Your task to perform on an android device: Open Google Image 0: 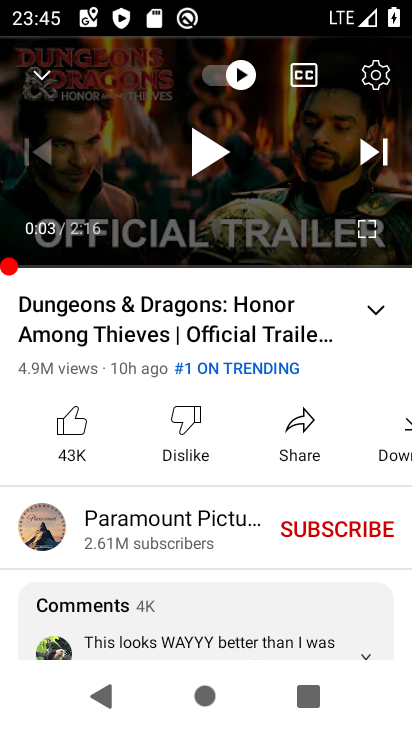
Step 0: press back button
Your task to perform on an android device: Open Google Image 1: 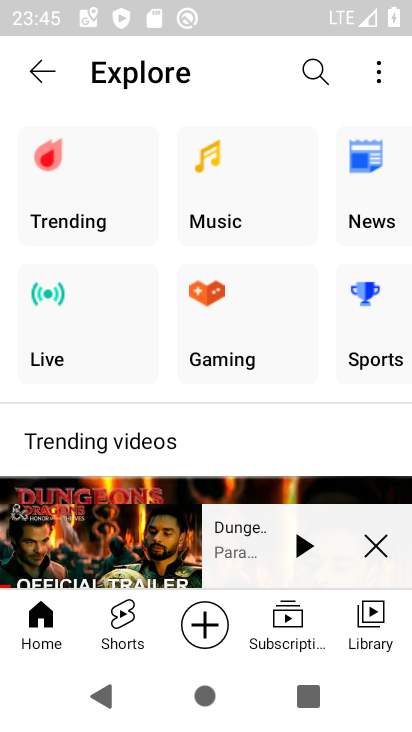
Step 1: press back button
Your task to perform on an android device: Open Google Image 2: 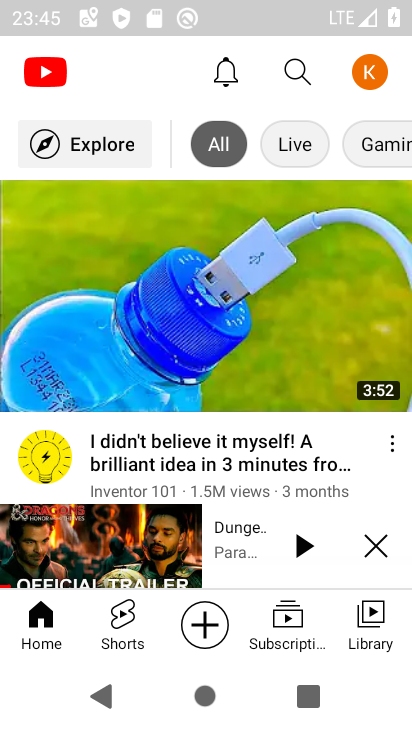
Step 2: press back button
Your task to perform on an android device: Open Google Image 3: 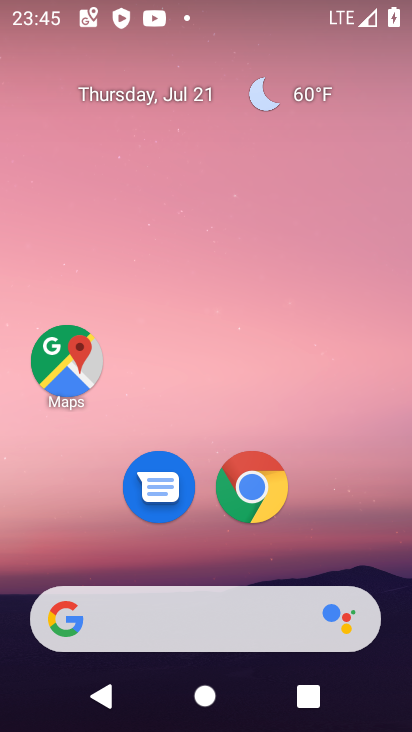
Step 3: drag from (195, 583) to (252, 16)
Your task to perform on an android device: Open Google Image 4: 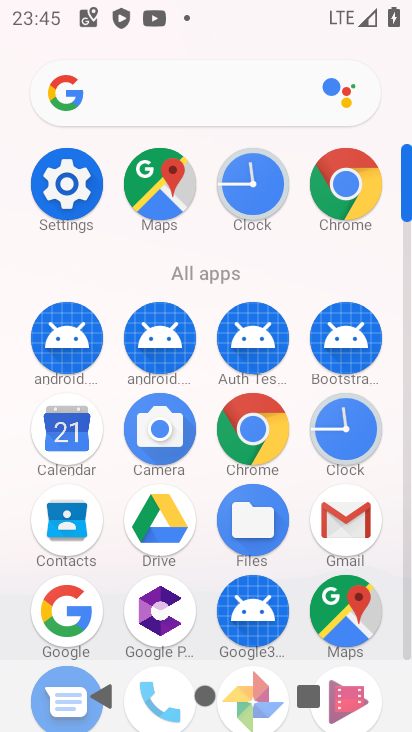
Step 4: click (68, 601)
Your task to perform on an android device: Open Google Image 5: 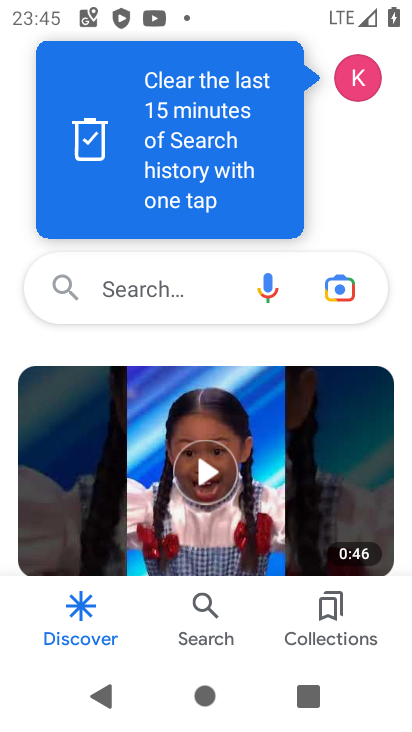
Step 5: task complete